Your task to perform on an android device: open a bookmark in the chrome app Image 0: 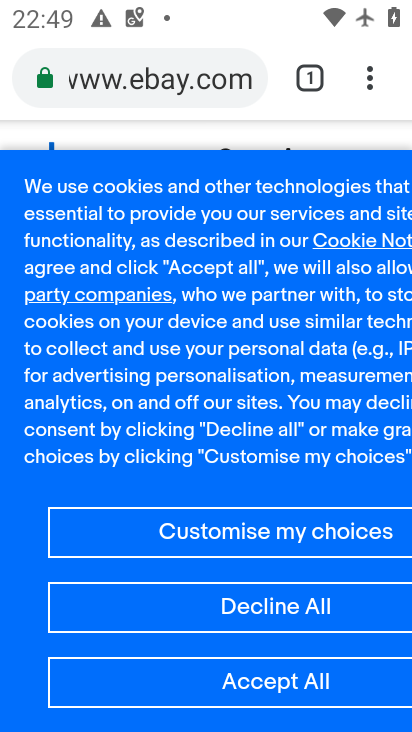
Step 0: press home button
Your task to perform on an android device: open a bookmark in the chrome app Image 1: 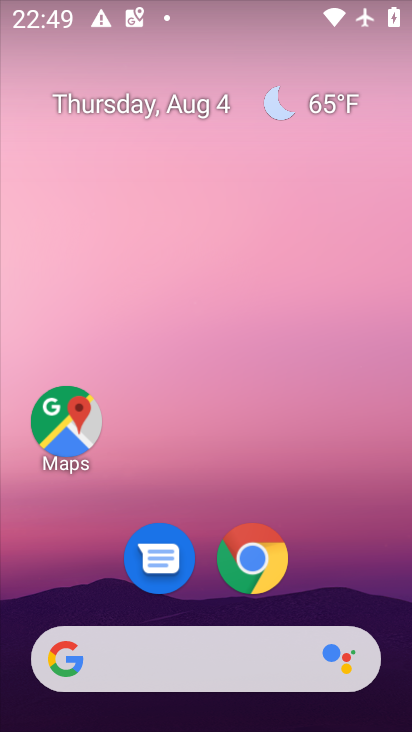
Step 1: drag from (371, 517) to (375, 82)
Your task to perform on an android device: open a bookmark in the chrome app Image 2: 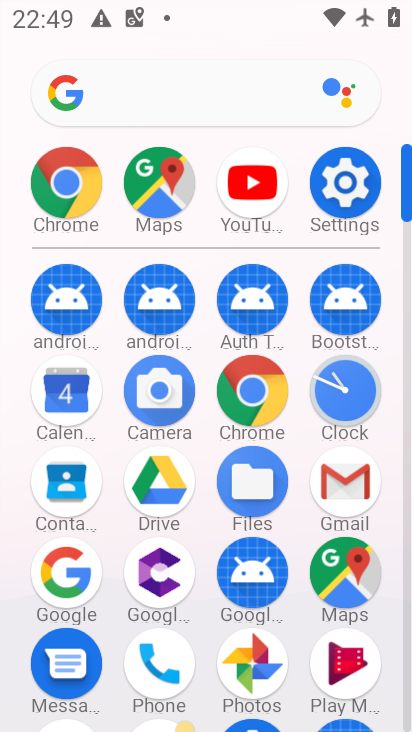
Step 2: click (257, 387)
Your task to perform on an android device: open a bookmark in the chrome app Image 3: 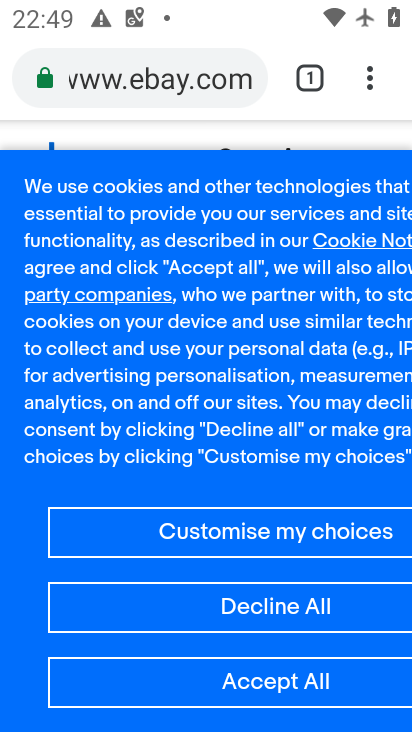
Step 3: drag from (369, 78) to (135, 297)
Your task to perform on an android device: open a bookmark in the chrome app Image 4: 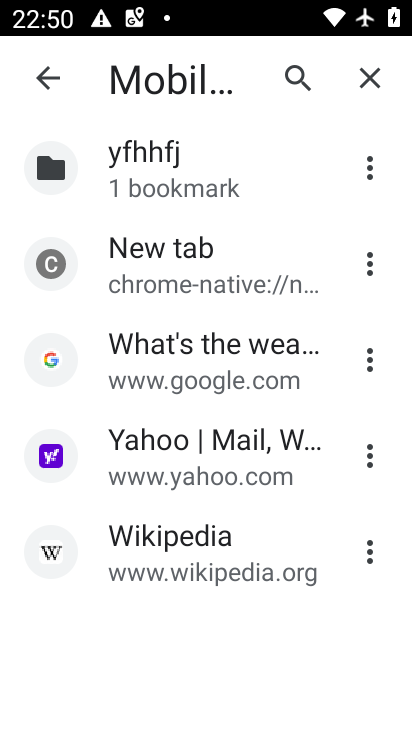
Step 4: click (181, 458)
Your task to perform on an android device: open a bookmark in the chrome app Image 5: 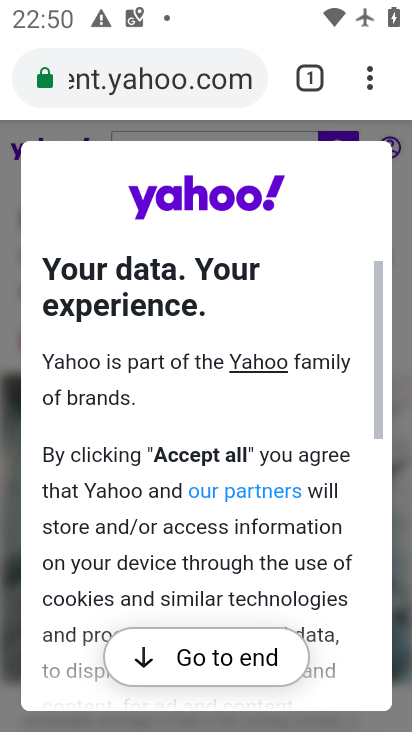
Step 5: task complete